Your task to perform on an android device: Go to Android settings Image 0: 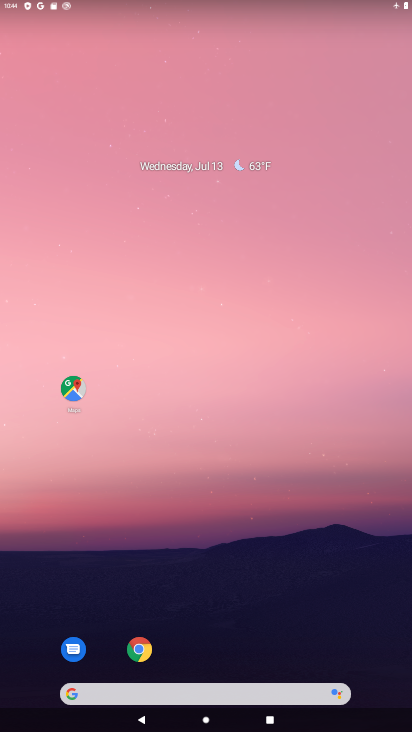
Step 0: drag from (236, 606) to (215, 287)
Your task to perform on an android device: Go to Android settings Image 1: 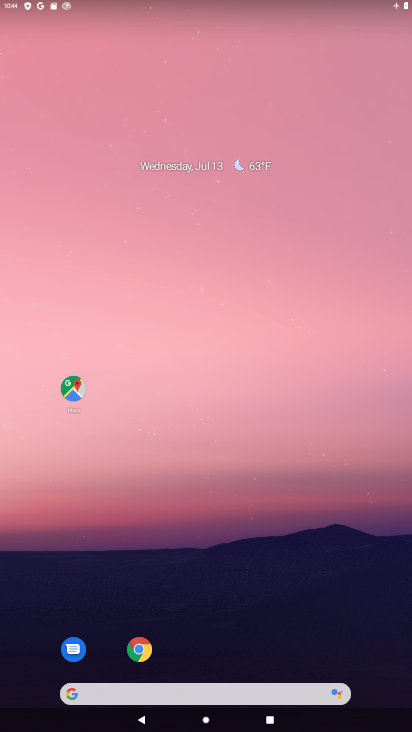
Step 1: drag from (288, 672) to (277, 148)
Your task to perform on an android device: Go to Android settings Image 2: 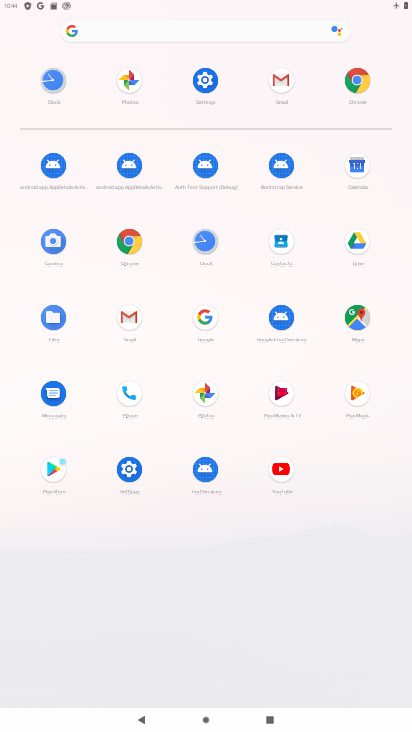
Step 2: click (204, 72)
Your task to perform on an android device: Go to Android settings Image 3: 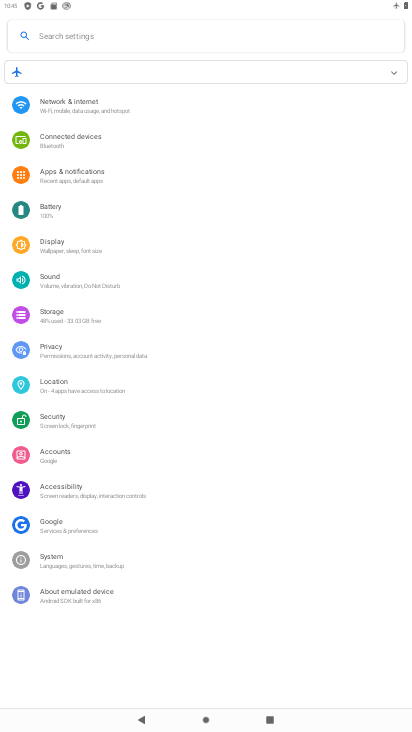
Step 3: task complete